Your task to perform on an android device: open a new tab in the chrome app Image 0: 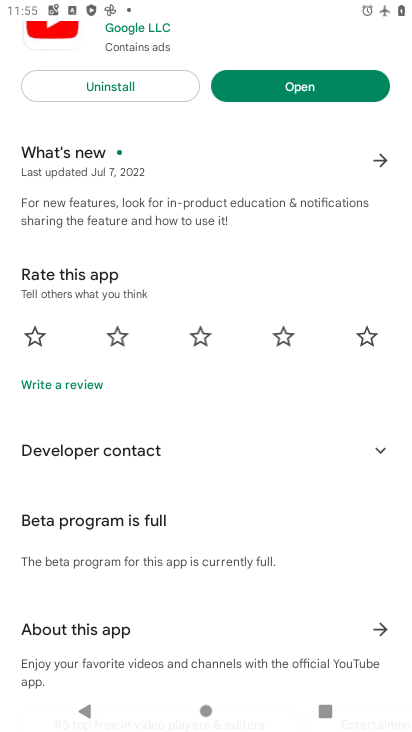
Step 0: press home button
Your task to perform on an android device: open a new tab in the chrome app Image 1: 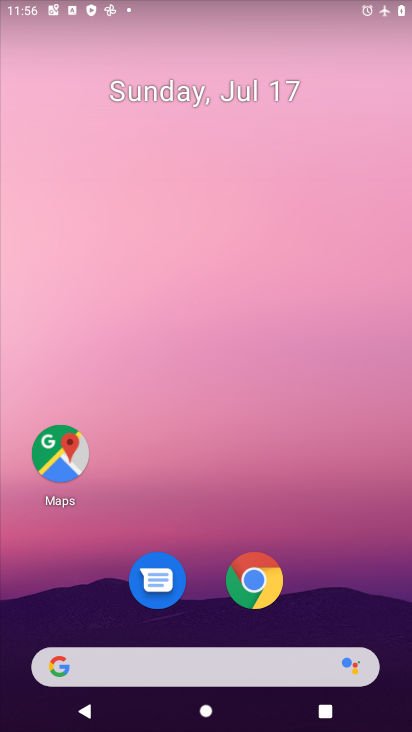
Step 1: drag from (235, 537) to (278, 204)
Your task to perform on an android device: open a new tab in the chrome app Image 2: 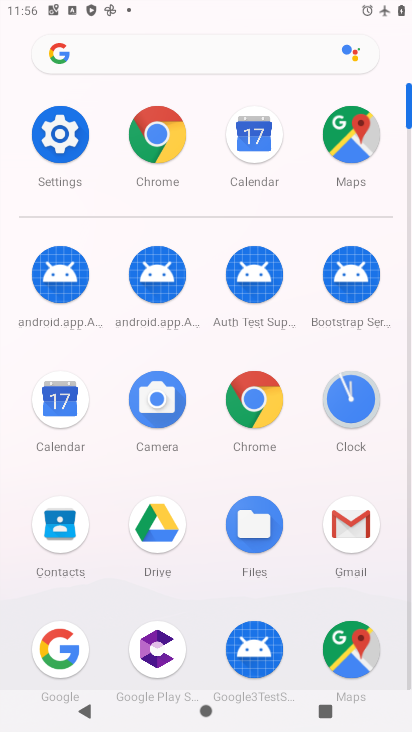
Step 2: click (265, 424)
Your task to perform on an android device: open a new tab in the chrome app Image 3: 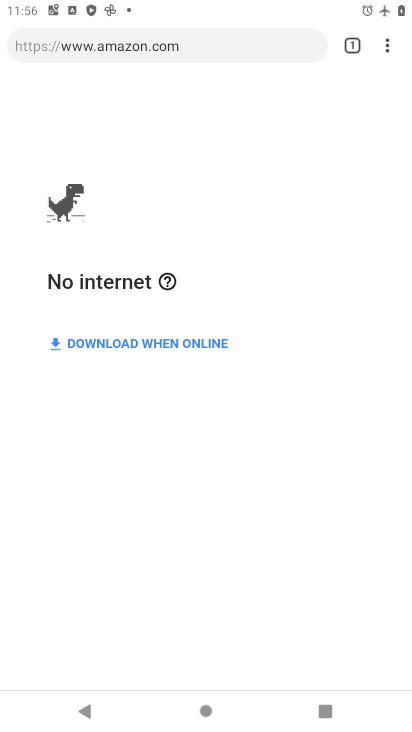
Step 3: drag from (356, 50) to (360, 158)
Your task to perform on an android device: open a new tab in the chrome app Image 4: 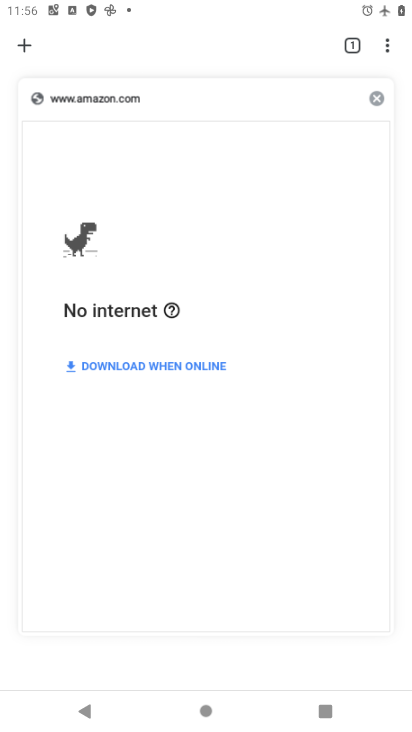
Step 4: click (23, 48)
Your task to perform on an android device: open a new tab in the chrome app Image 5: 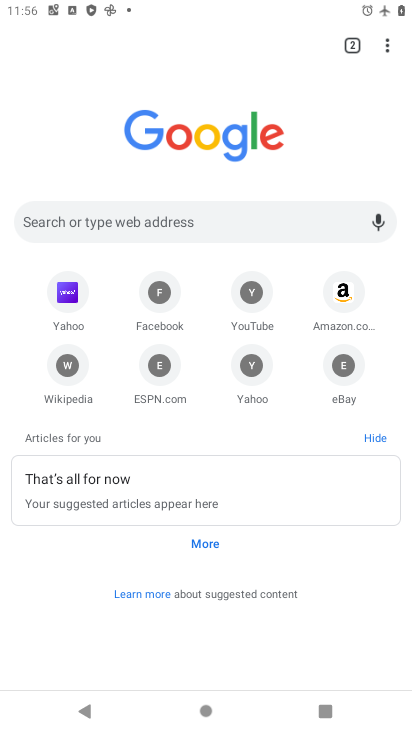
Step 5: task complete